Your task to perform on an android device: see sites visited before in the chrome app Image 0: 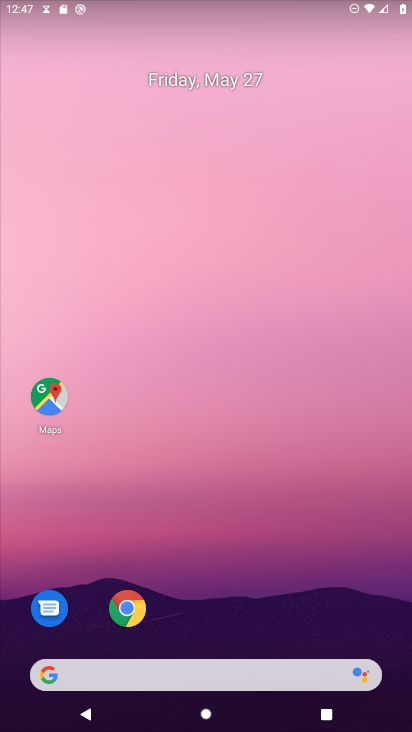
Step 0: press home button
Your task to perform on an android device: see sites visited before in the chrome app Image 1: 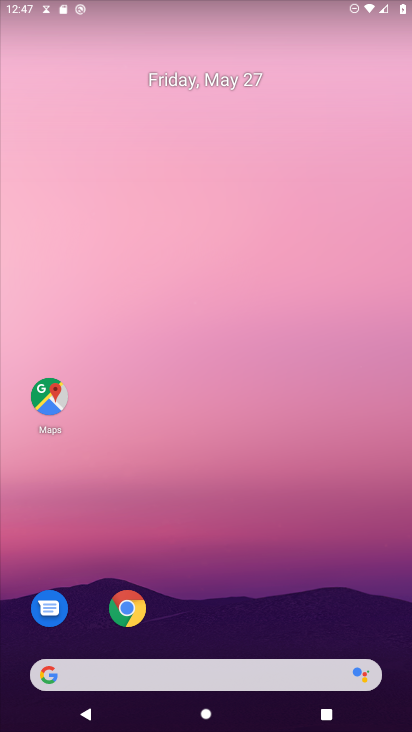
Step 1: click (124, 620)
Your task to perform on an android device: see sites visited before in the chrome app Image 2: 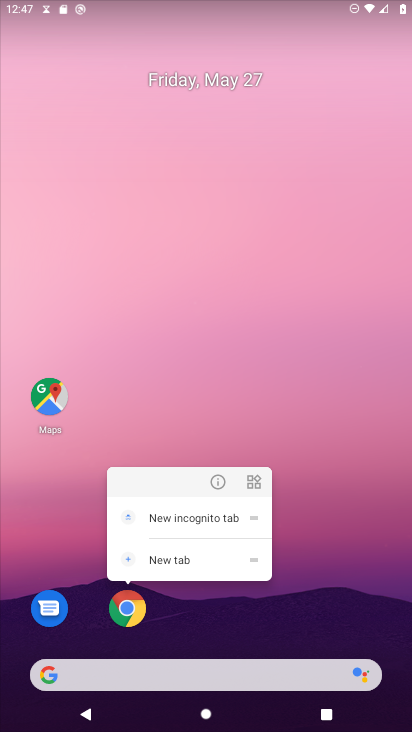
Step 2: click (131, 608)
Your task to perform on an android device: see sites visited before in the chrome app Image 3: 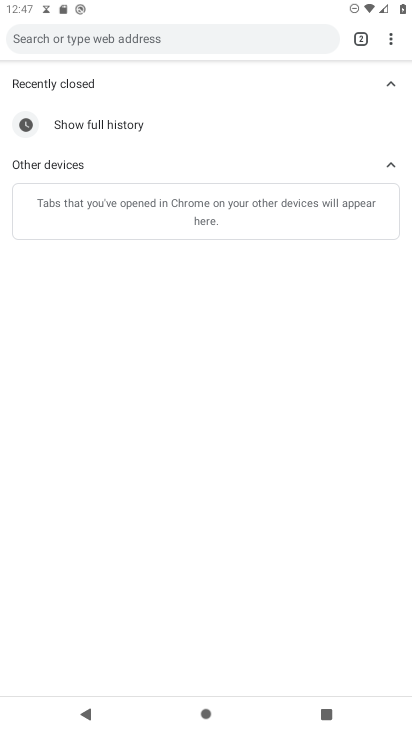
Step 3: task complete